Your task to perform on an android device: Open sound settings Image 0: 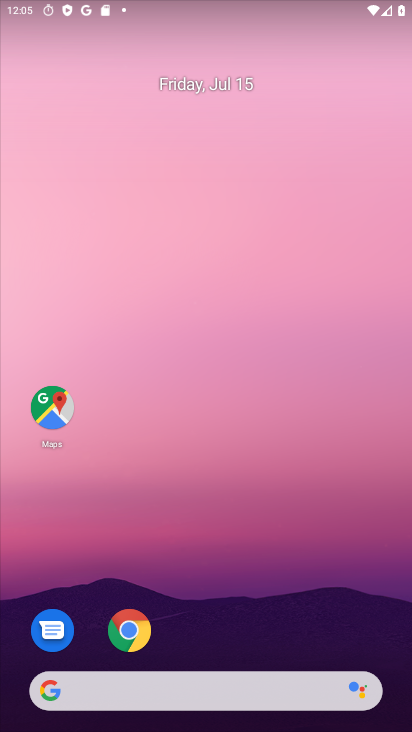
Step 0: drag from (193, 639) to (221, 144)
Your task to perform on an android device: Open sound settings Image 1: 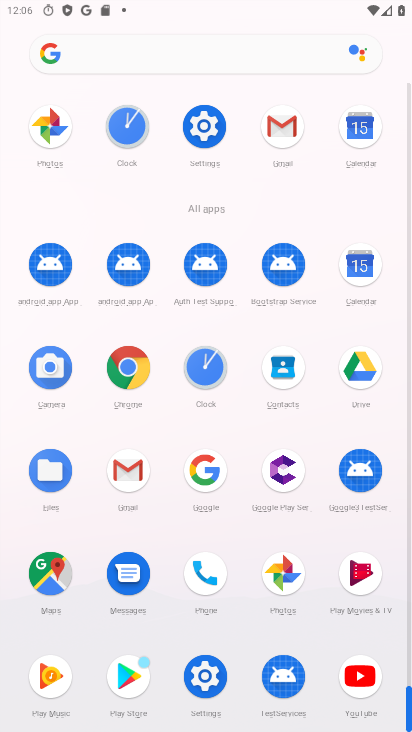
Step 1: click (202, 136)
Your task to perform on an android device: Open sound settings Image 2: 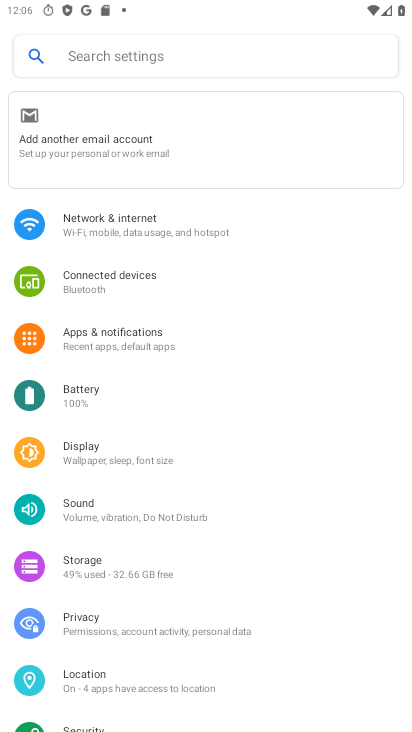
Step 2: drag from (193, 607) to (209, 81)
Your task to perform on an android device: Open sound settings Image 3: 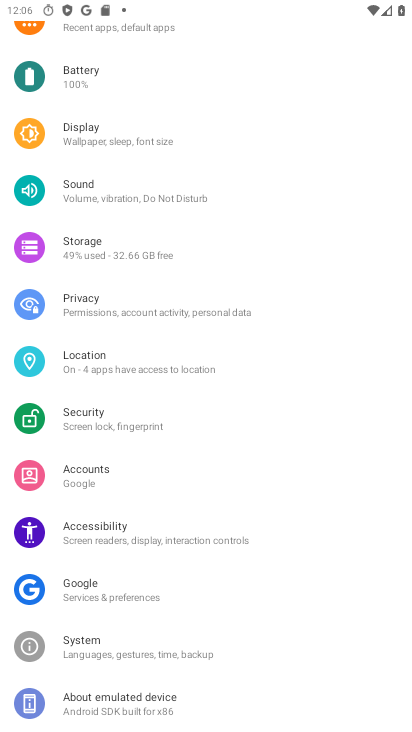
Step 3: drag from (142, 159) to (243, 571)
Your task to perform on an android device: Open sound settings Image 4: 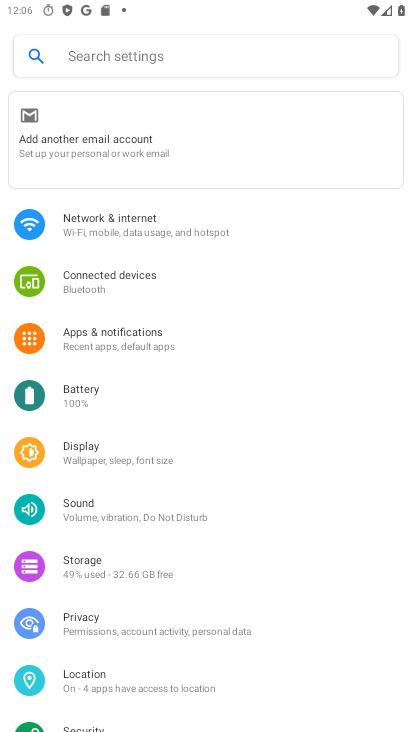
Step 4: click (85, 520)
Your task to perform on an android device: Open sound settings Image 5: 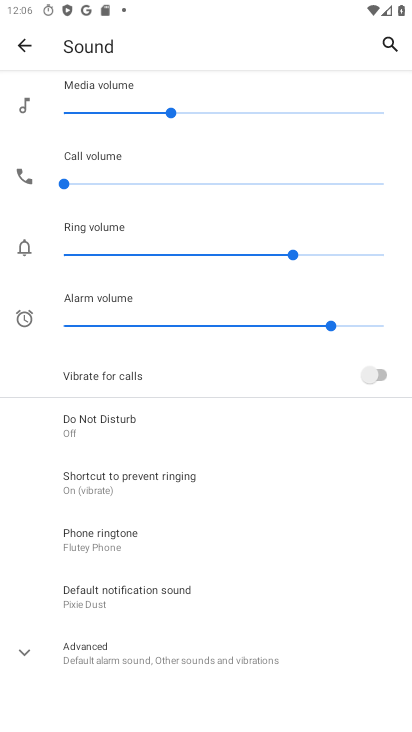
Step 5: task complete